Your task to perform on an android device: Open eBay Image 0: 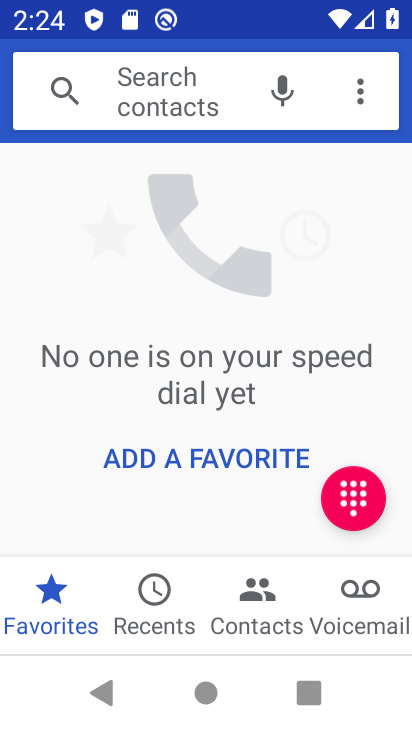
Step 0: press home button
Your task to perform on an android device: Open eBay Image 1: 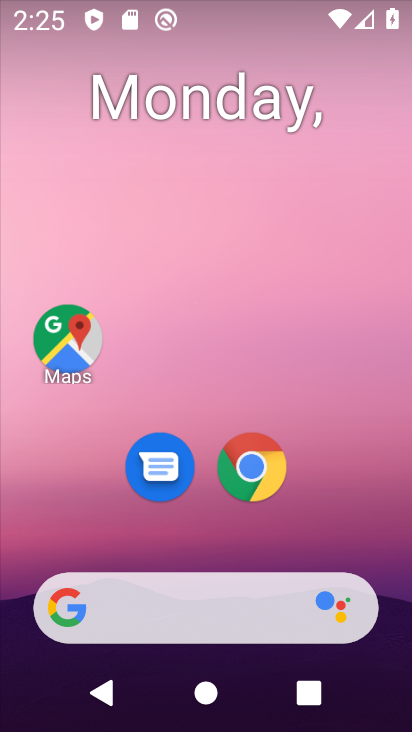
Step 1: click (261, 473)
Your task to perform on an android device: Open eBay Image 2: 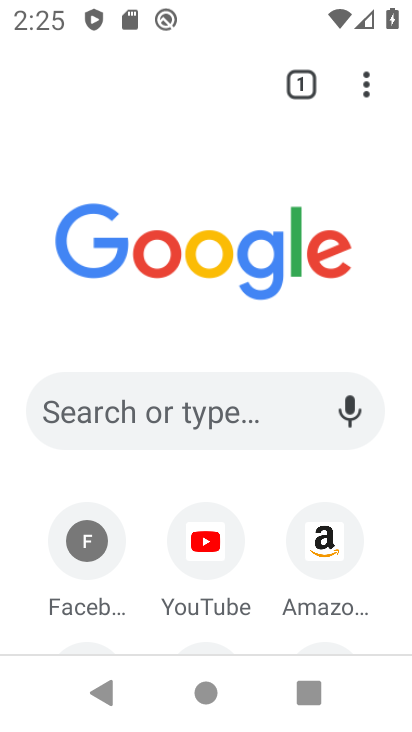
Step 2: drag from (400, 571) to (355, 260)
Your task to perform on an android device: Open eBay Image 3: 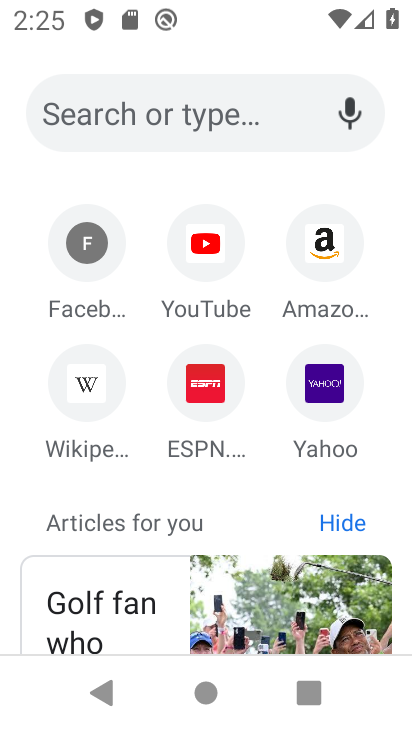
Step 3: click (239, 127)
Your task to perform on an android device: Open eBay Image 4: 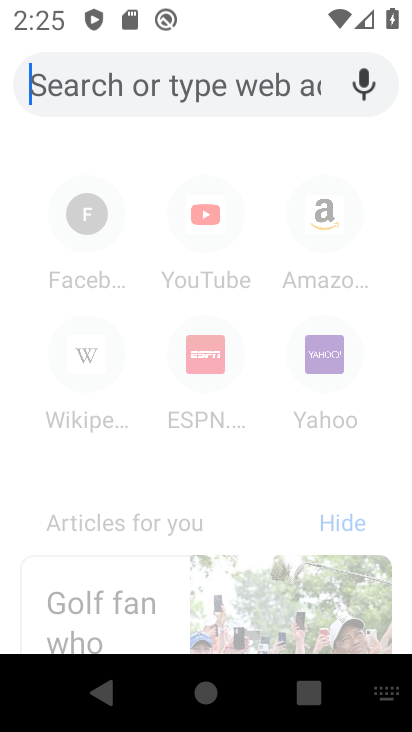
Step 4: type "eBay"
Your task to perform on an android device: Open eBay Image 5: 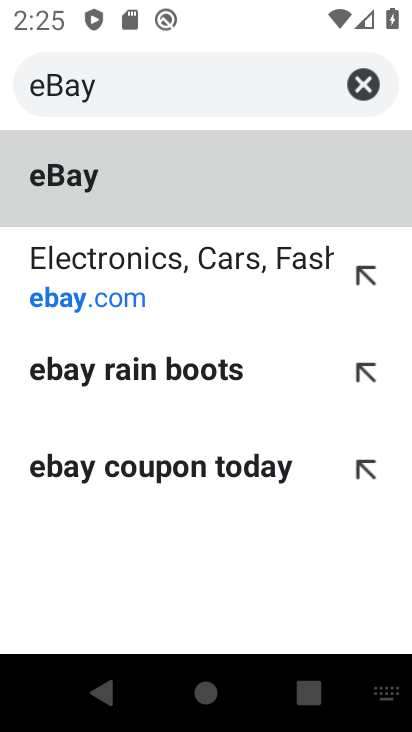
Step 5: click (88, 170)
Your task to perform on an android device: Open eBay Image 6: 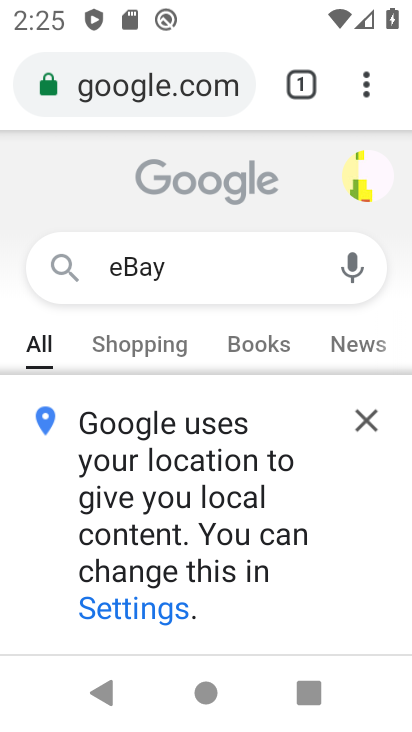
Step 6: click (359, 426)
Your task to perform on an android device: Open eBay Image 7: 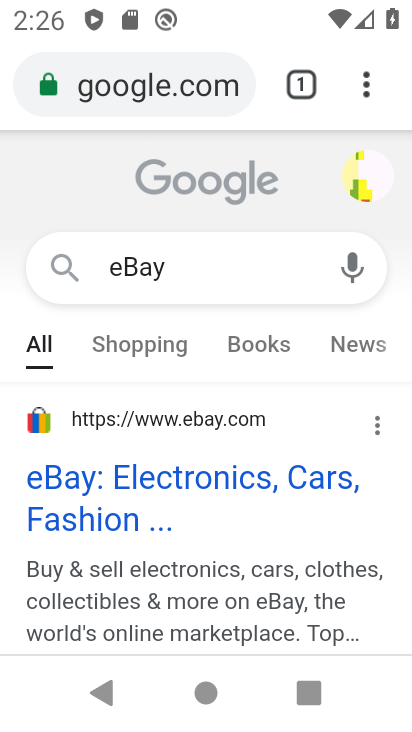
Step 7: click (308, 491)
Your task to perform on an android device: Open eBay Image 8: 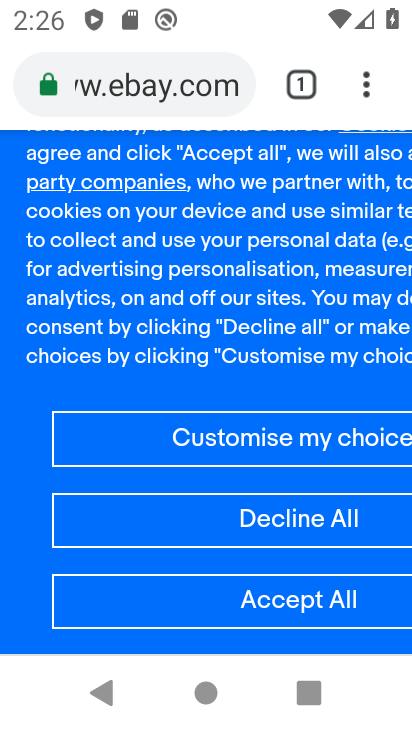
Step 8: click (389, 600)
Your task to perform on an android device: Open eBay Image 9: 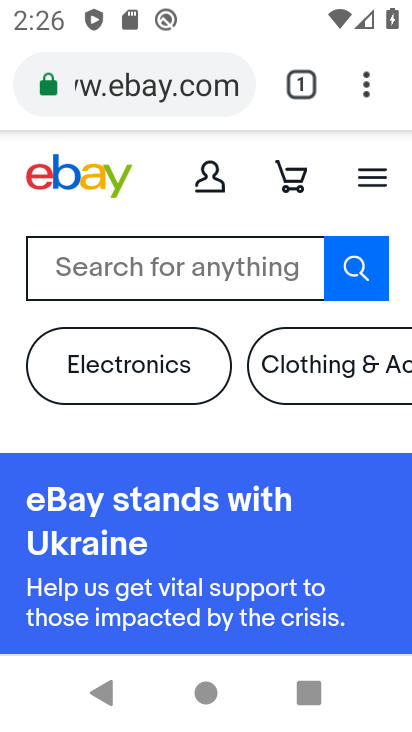
Step 9: task complete